Your task to perform on an android device: delete the emails in spam in the gmail app Image 0: 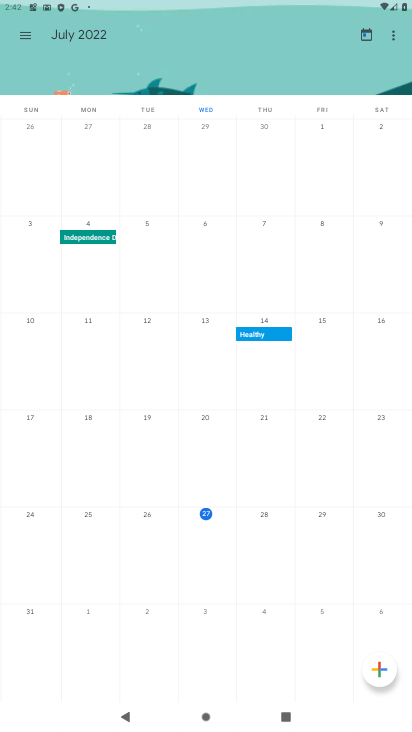
Step 0: task complete